Your task to perform on an android device: Go to Yahoo.com Image 0: 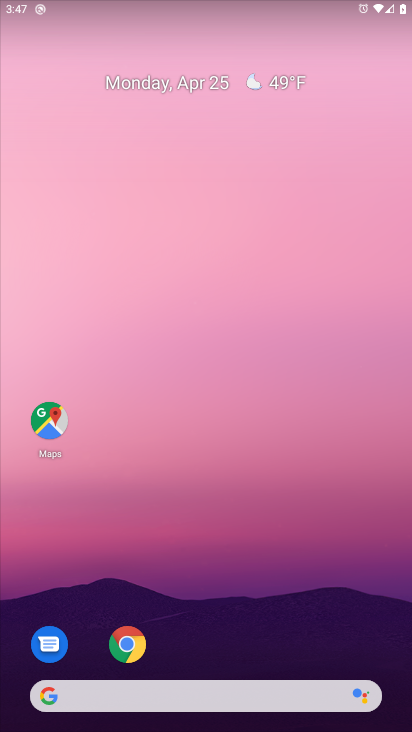
Step 0: click (132, 649)
Your task to perform on an android device: Go to Yahoo.com Image 1: 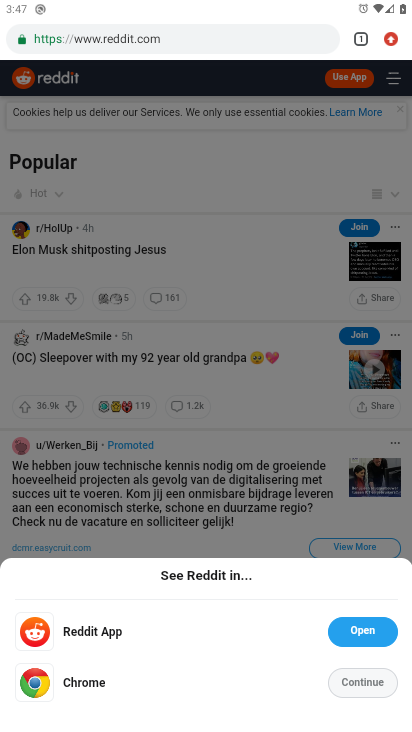
Step 1: press home button
Your task to perform on an android device: Go to Yahoo.com Image 2: 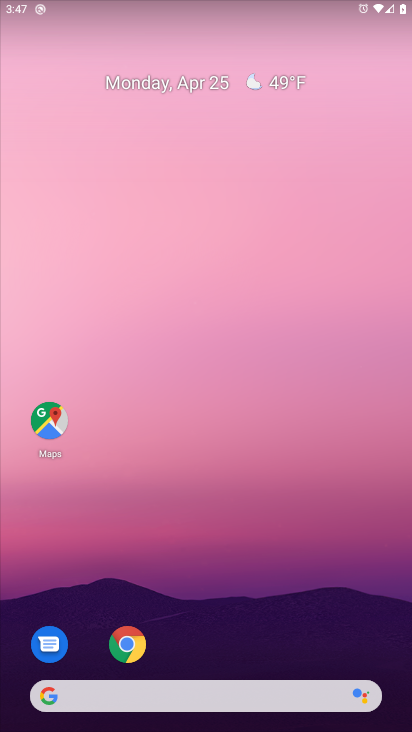
Step 2: click (124, 649)
Your task to perform on an android device: Go to Yahoo.com Image 3: 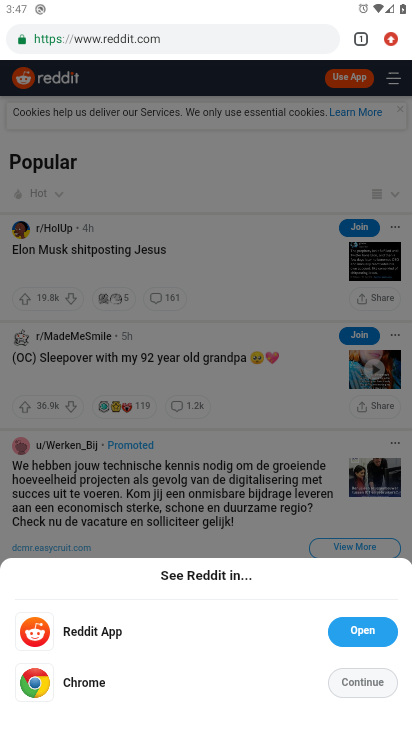
Step 3: click (194, 41)
Your task to perform on an android device: Go to Yahoo.com Image 4: 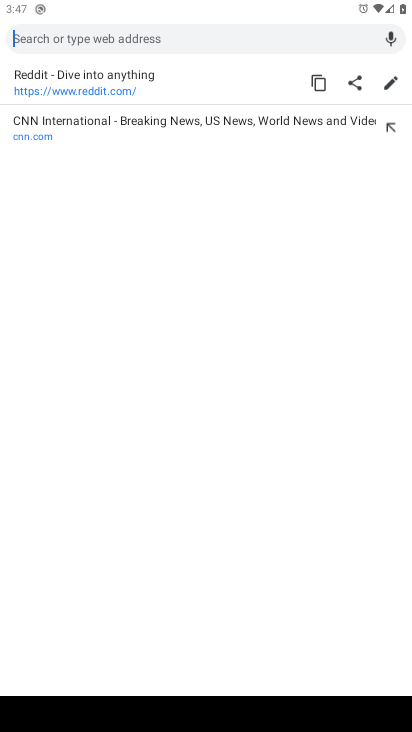
Step 4: type "yahoo."
Your task to perform on an android device: Go to Yahoo.com Image 5: 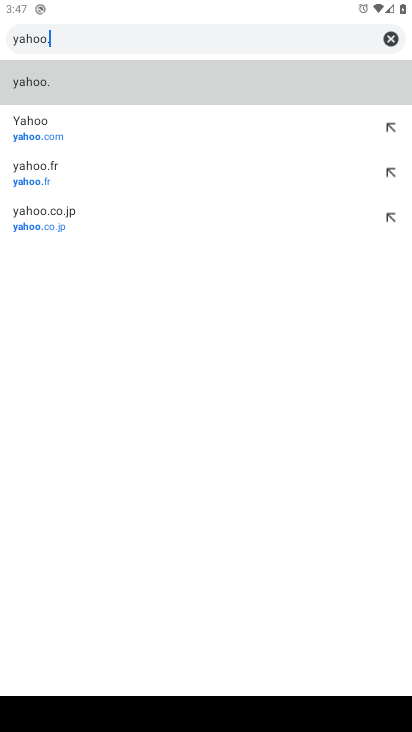
Step 5: type "com"
Your task to perform on an android device: Go to Yahoo.com Image 6: 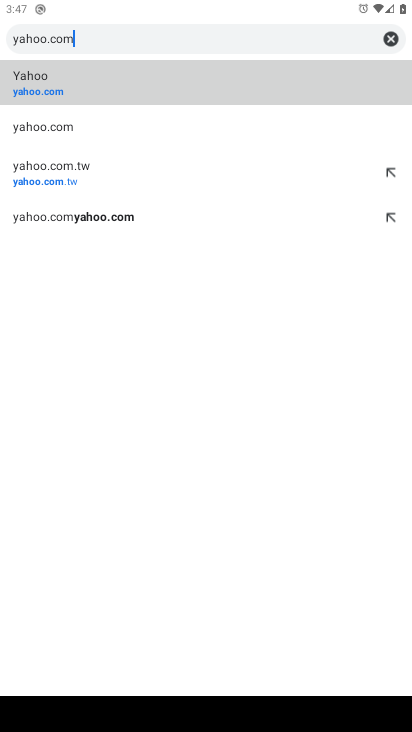
Step 6: task complete